Your task to perform on an android device: Search for good Italian restaurants on Maps Image 0: 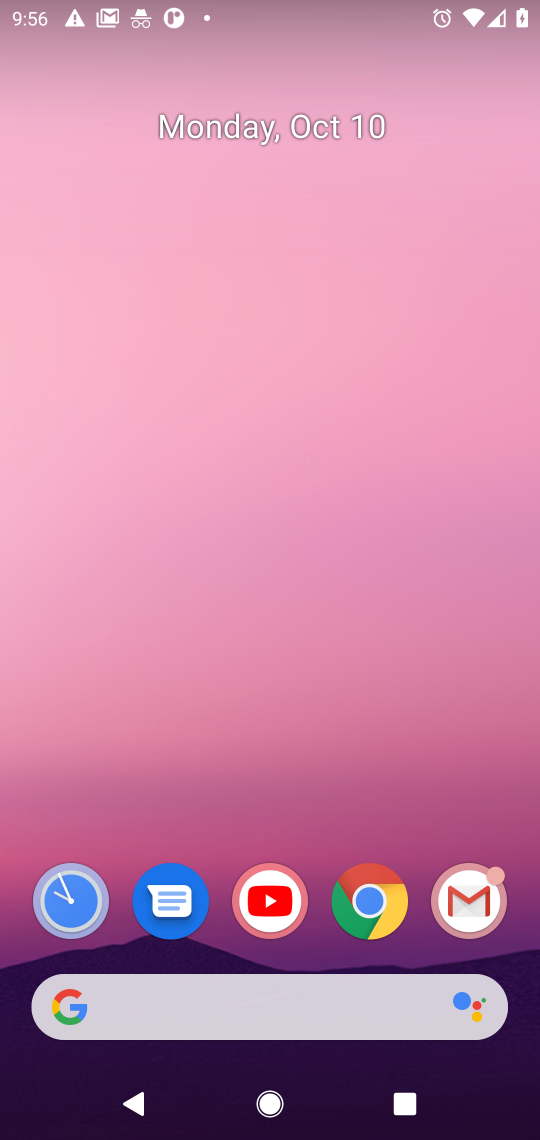
Step 0: press home button
Your task to perform on an android device: Search for good Italian restaurants on Maps Image 1: 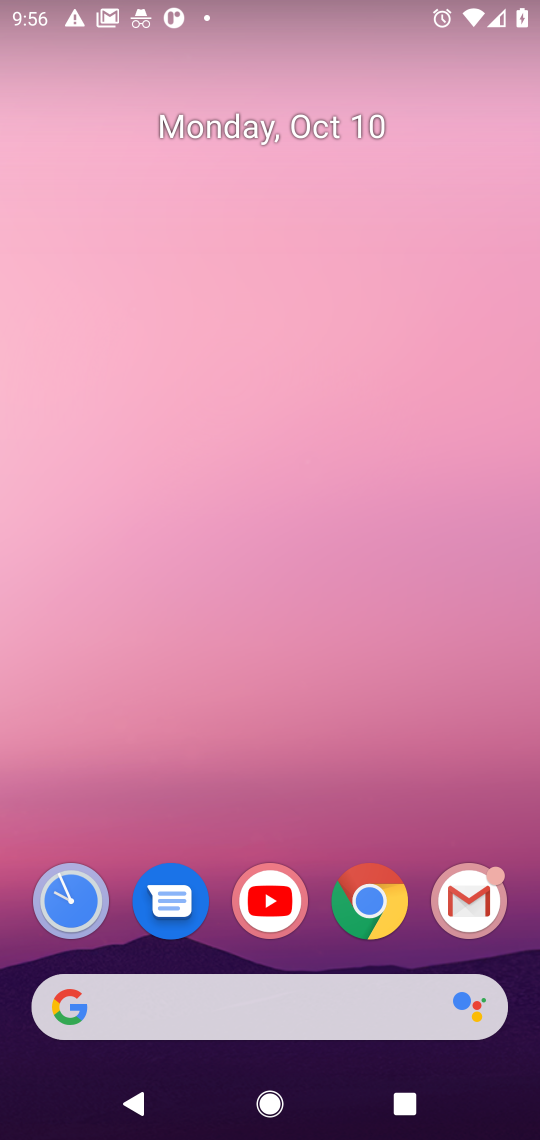
Step 1: drag from (479, 801) to (443, 107)
Your task to perform on an android device: Search for good Italian restaurants on Maps Image 2: 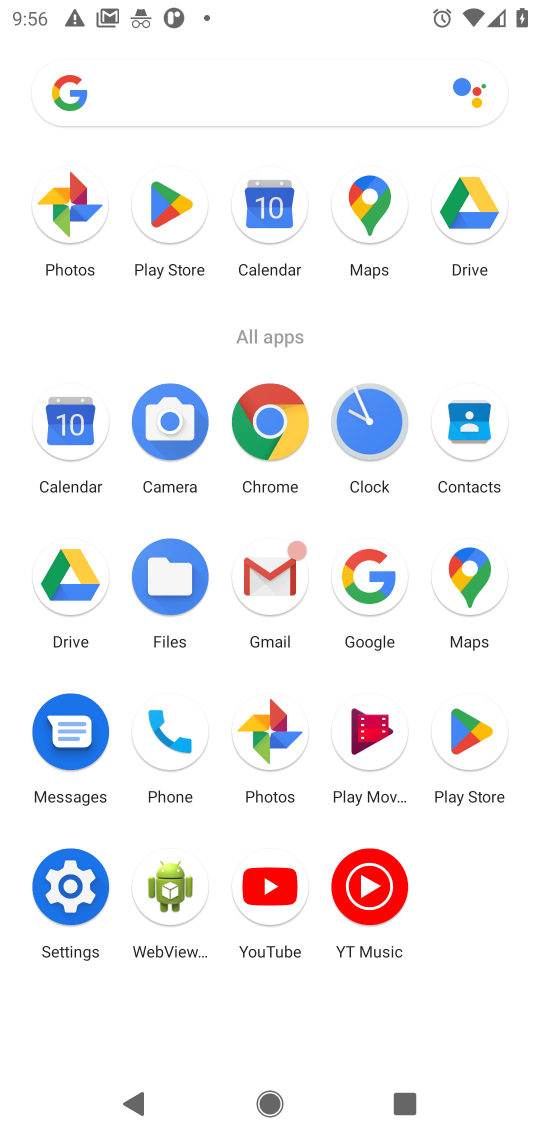
Step 2: click (355, 206)
Your task to perform on an android device: Search for good Italian restaurants on Maps Image 3: 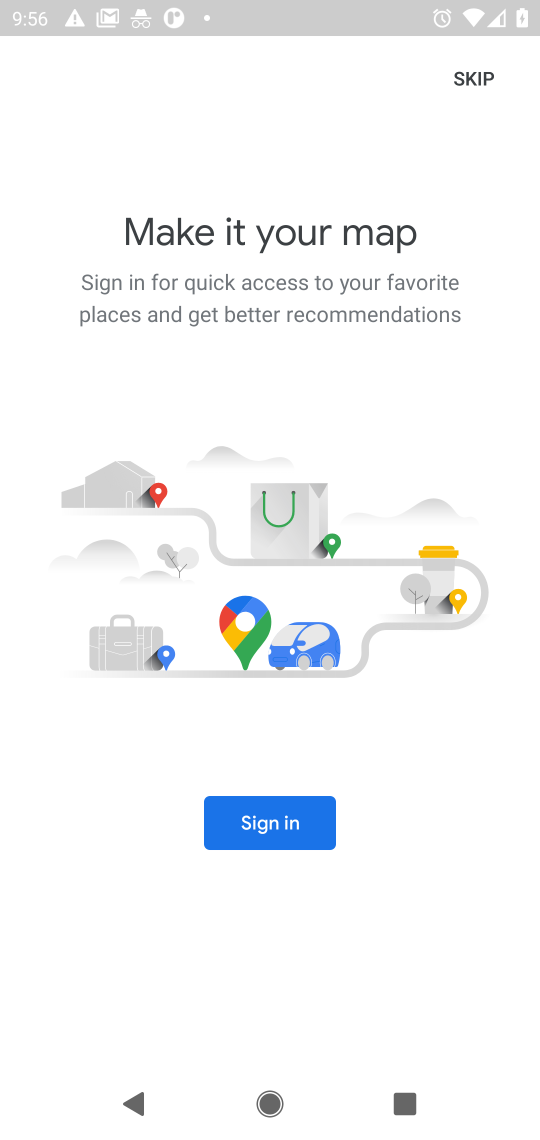
Step 3: click (477, 72)
Your task to perform on an android device: Search for good Italian restaurants on Maps Image 4: 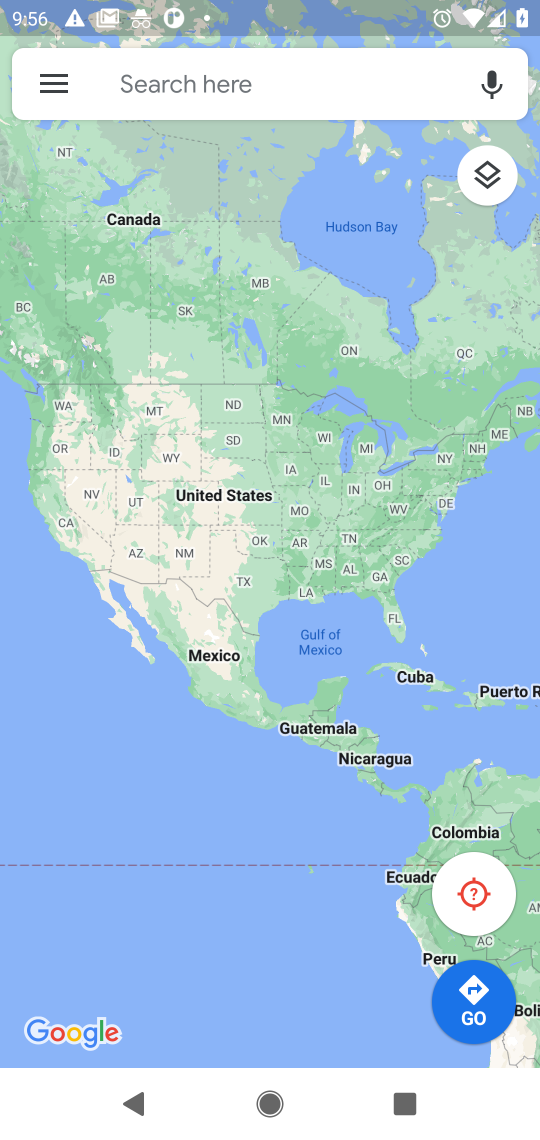
Step 4: click (285, 86)
Your task to perform on an android device: Search for good Italian restaurants on Maps Image 5: 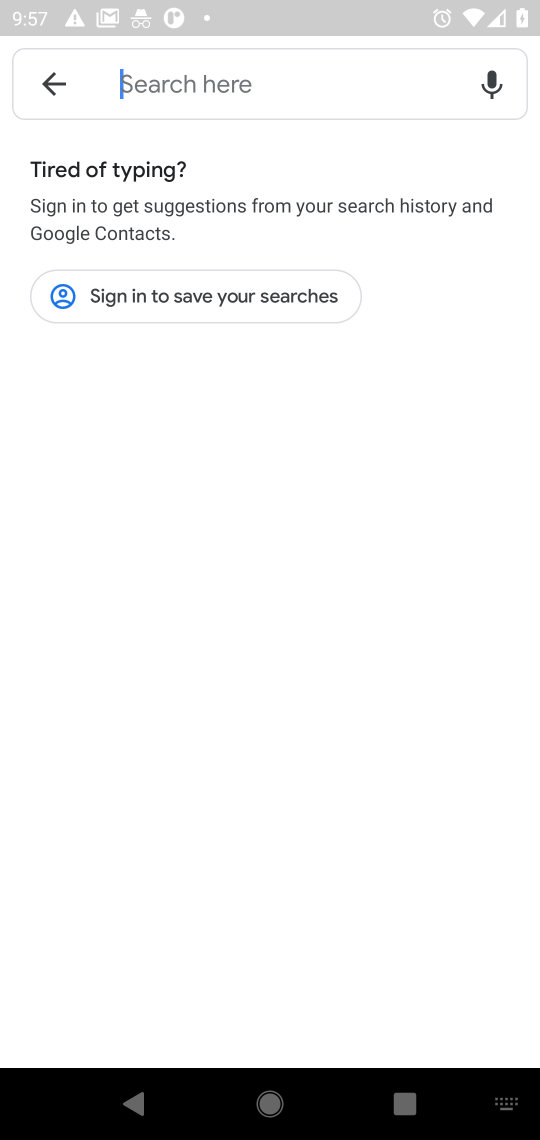
Step 5: type "Italian restaurants "
Your task to perform on an android device: Search for good Italian restaurants on Maps Image 6: 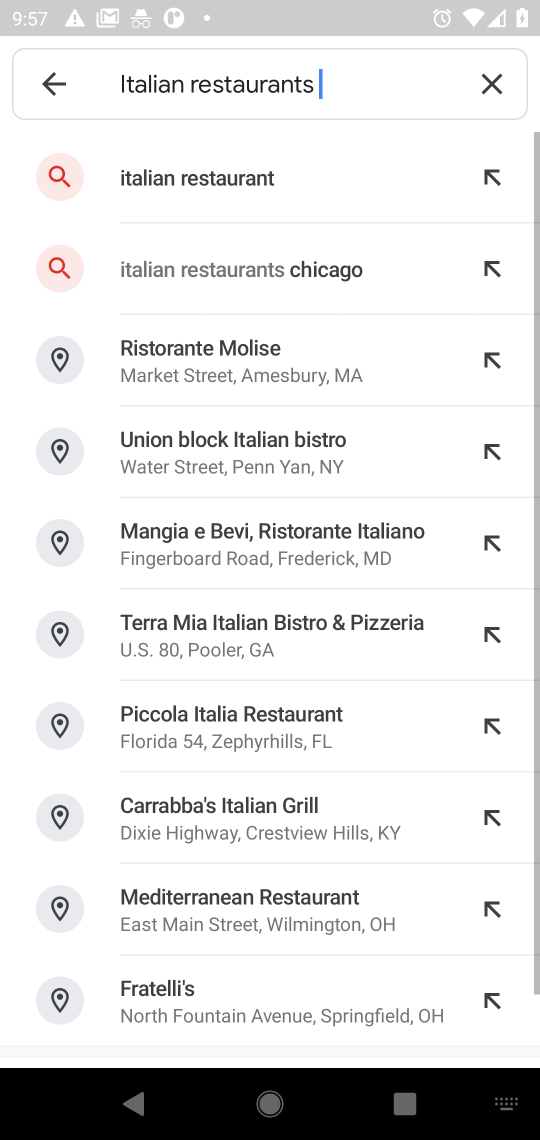
Step 6: press enter
Your task to perform on an android device: Search for good Italian restaurants on Maps Image 7: 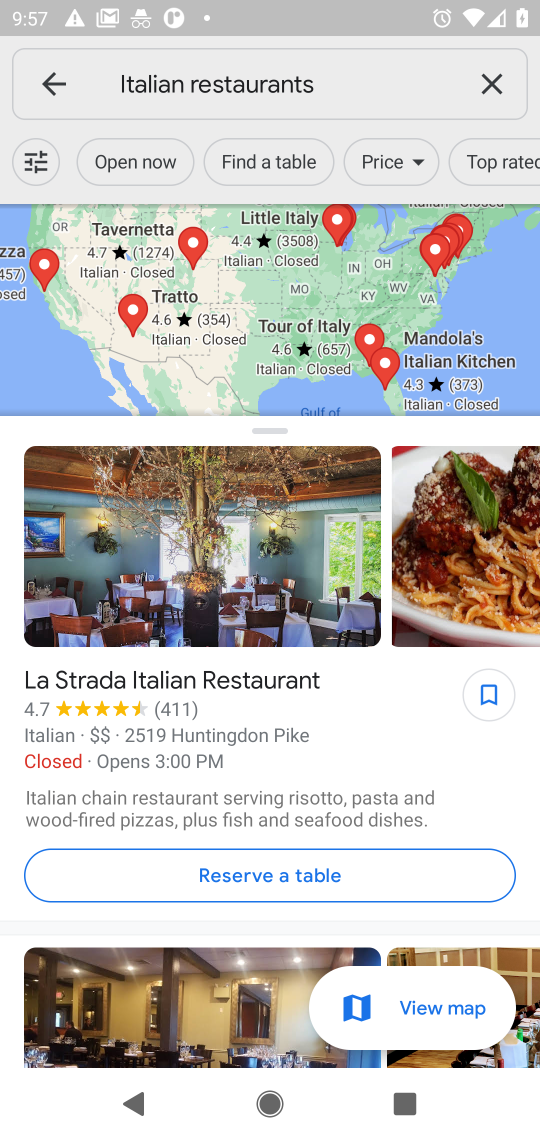
Step 7: task complete